Your task to perform on an android device: toggle notifications settings in the gmail app Image 0: 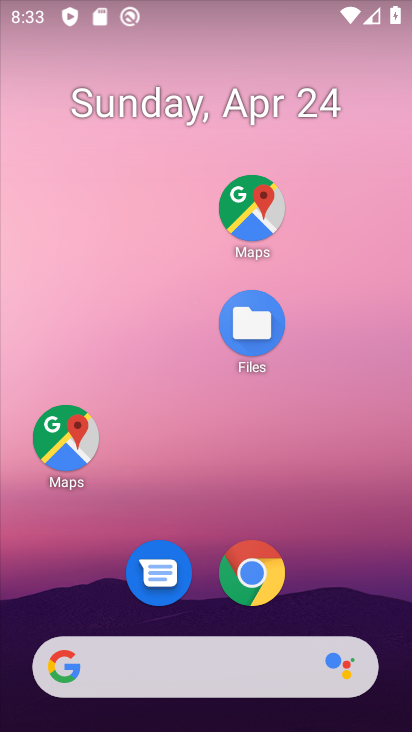
Step 0: drag from (205, 627) to (112, 13)
Your task to perform on an android device: toggle notifications settings in the gmail app Image 1: 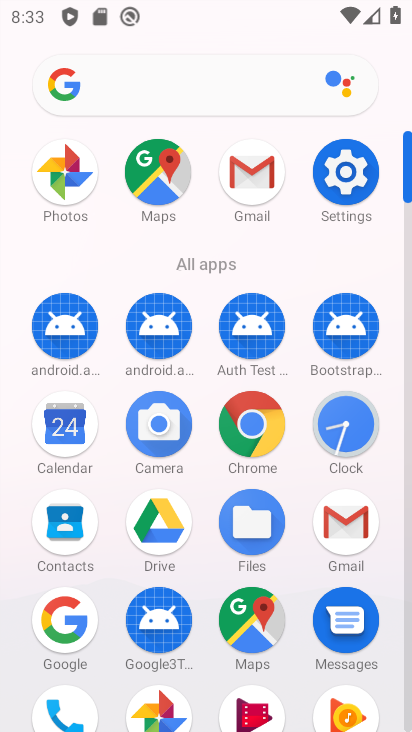
Step 1: click (361, 502)
Your task to perform on an android device: toggle notifications settings in the gmail app Image 2: 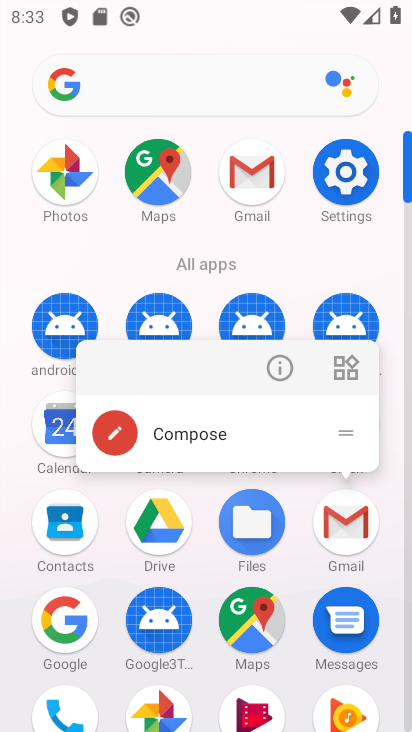
Step 2: click (344, 533)
Your task to perform on an android device: toggle notifications settings in the gmail app Image 3: 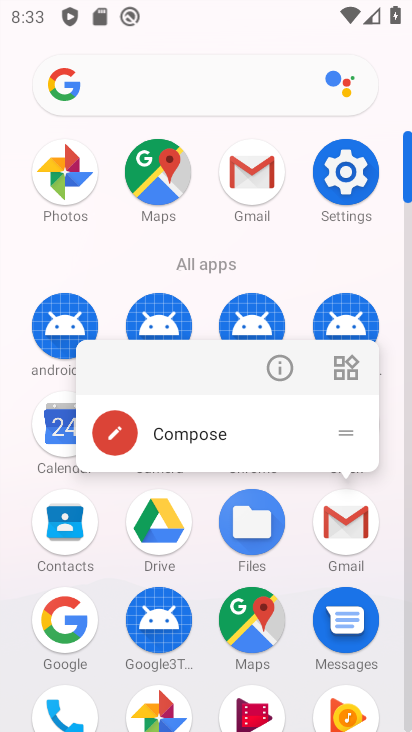
Step 3: click (367, 518)
Your task to perform on an android device: toggle notifications settings in the gmail app Image 4: 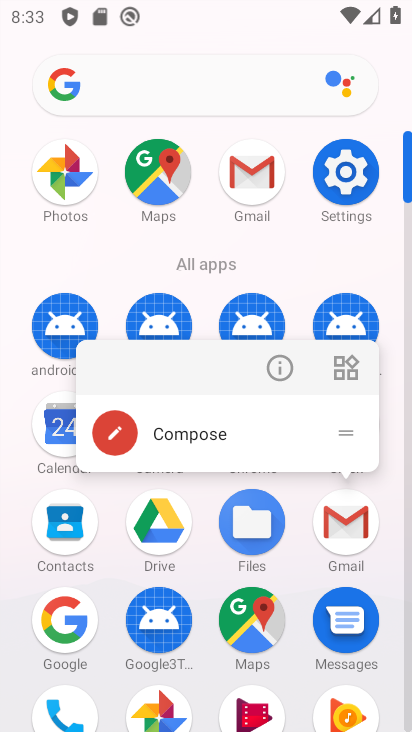
Step 4: click (353, 524)
Your task to perform on an android device: toggle notifications settings in the gmail app Image 5: 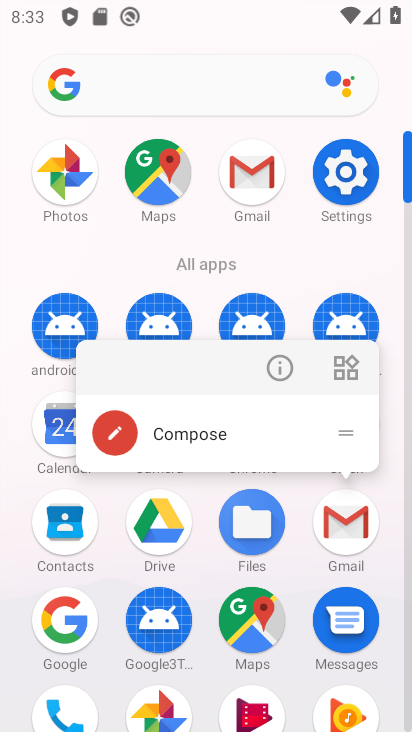
Step 5: click (364, 513)
Your task to perform on an android device: toggle notifications settings in the gmail app Image 6: 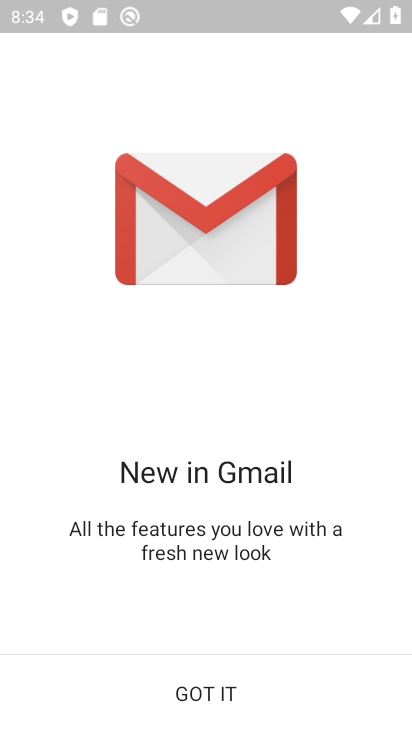
Step 6: click (200, 690)
Your task to perform on an android device: toggle notifications settings in the gmail app Image 7: 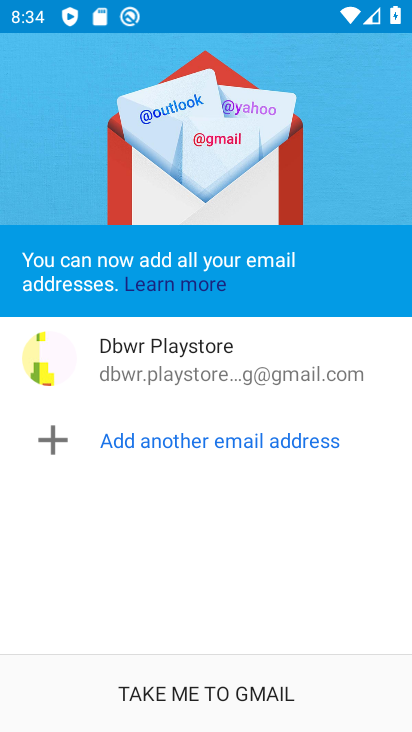
Step 7: click (251, 711)
Your task to perform on an android device: toggle notifications settings in the gmail app Image 8: 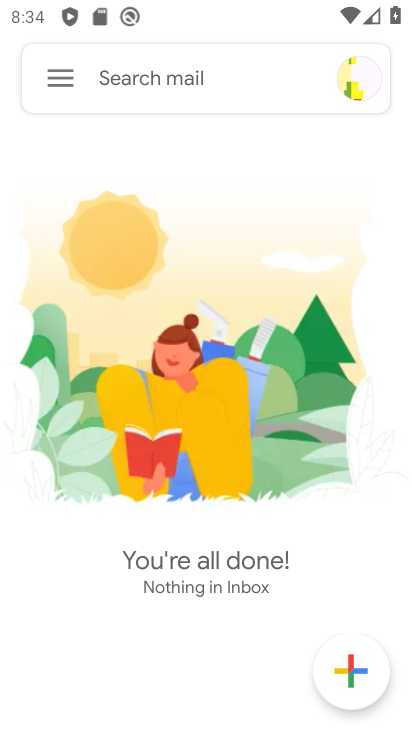
Step 8: click (45, 86)
Your task to perform on an android device: toggle notifications settings in the gmail app Image 9: 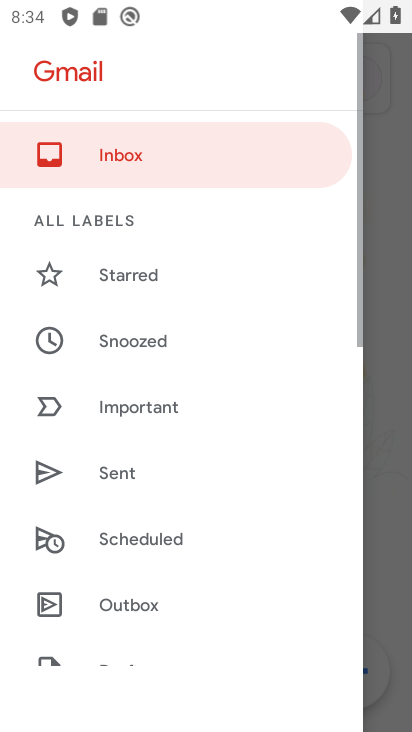
Step 9: drag from (110, 518) to (93, 75)
Your task to perform on an android device: toggle notifications settings in the gmail app Image 10: 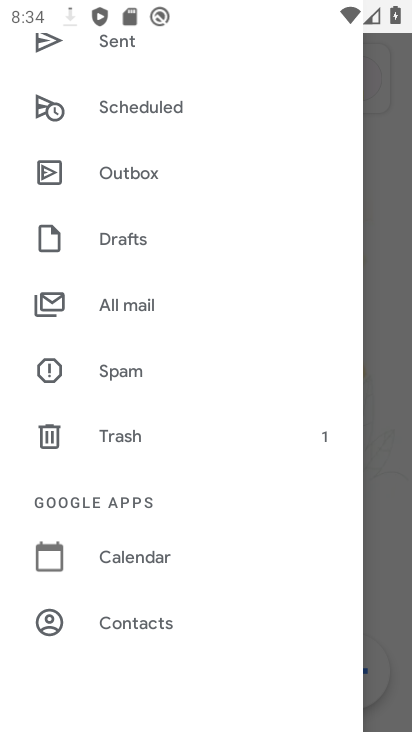
Step 10: drag from (142, 632) to (76, 203)
Your task to perform on an android device: toggle notifications settings in the gmail app Image 11: 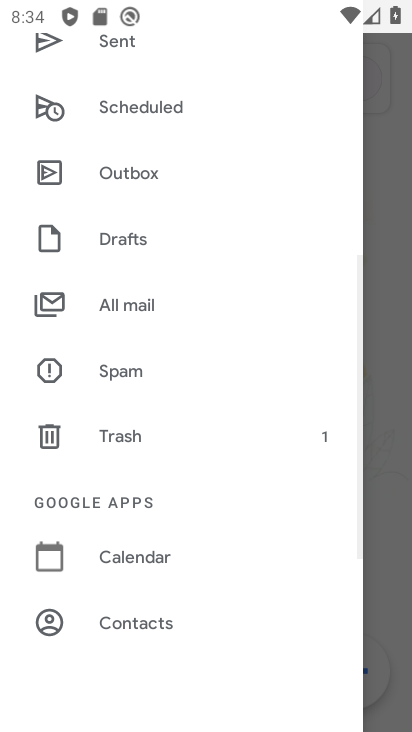
Step 11: drag from (109, 573) to (141, 156)
Your task to perform on an android device: toggle notifications settings in the gmail app Image 12: 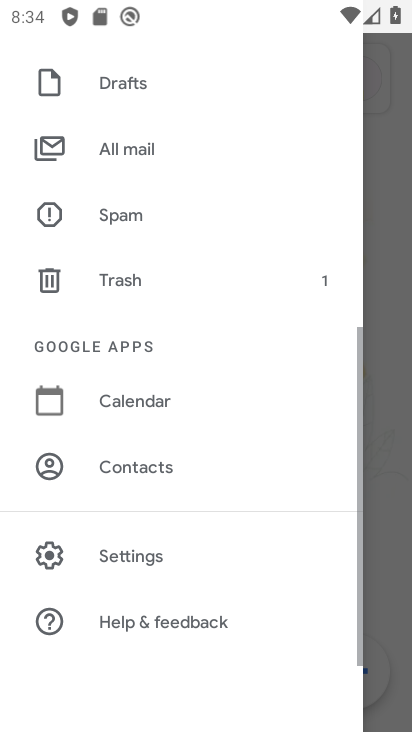
Step 12: click (142, 545)
Your task to perform on an android device: toggle notifications settings in the gmail app Image 13: 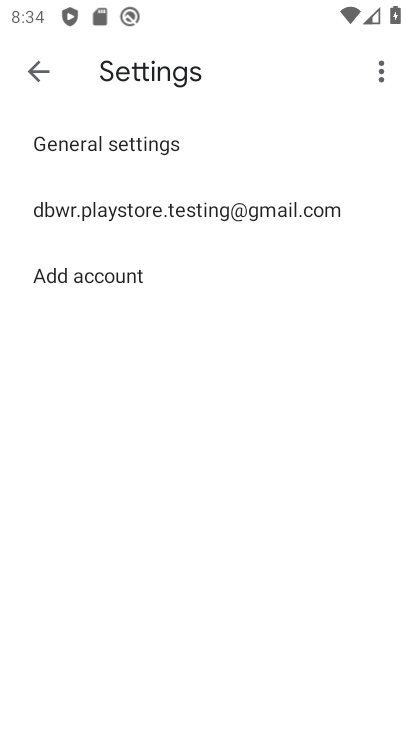
Step 13: click (88, 118)
Your task to perform on an android device: toggle notifications settings in the gmail app Image 14: 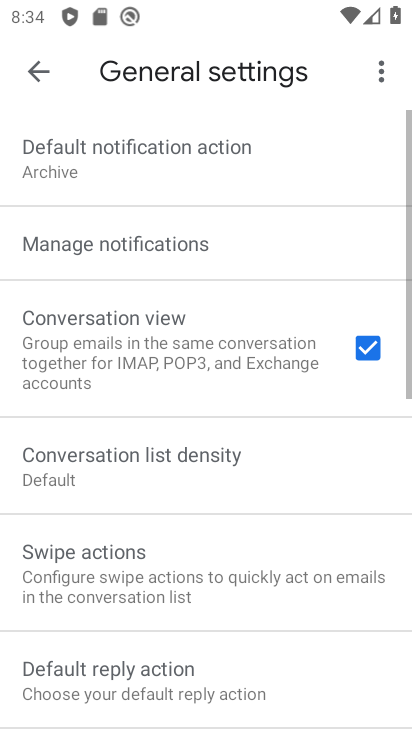
Step 14: click (246, 272)
Your task to perform on an android device: toggle notifications settings in the gmail app Image 15: 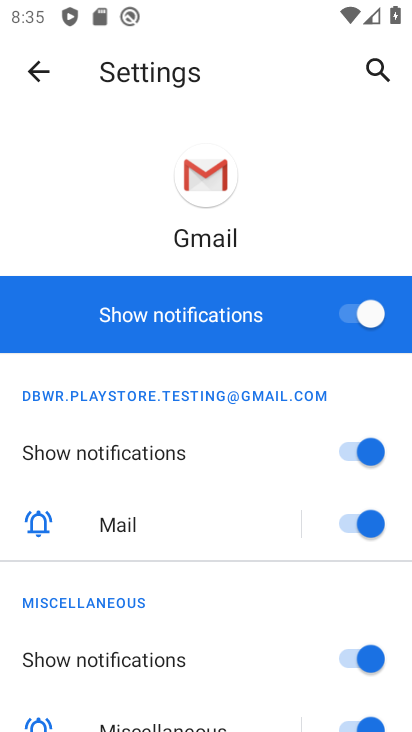
Step 15: click (380, 309)
Your task to perform on an android device: toggle notifications settings in the gmail app Image 16: 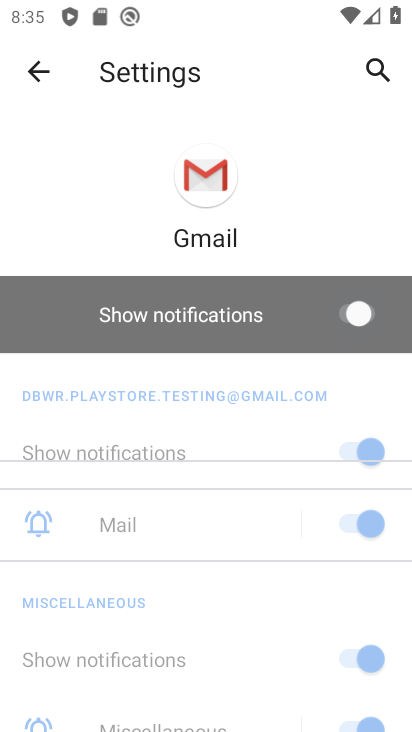
Step 16: task complete